Your task to perform on an android device: Open my contact list Image 0: 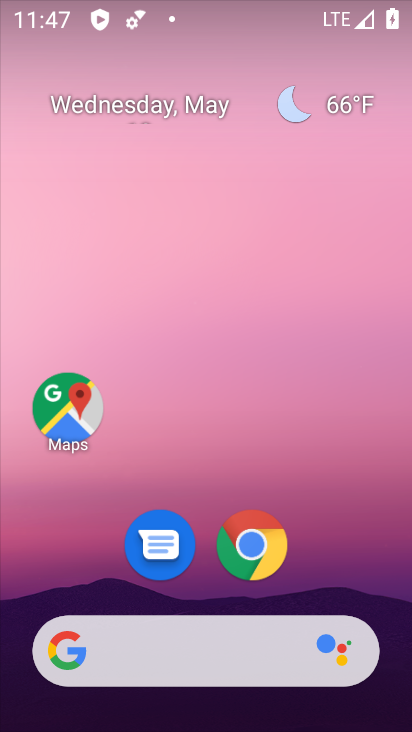
Step 0: press home button
Your task to perform on an android device: Open my contact list Image 1: 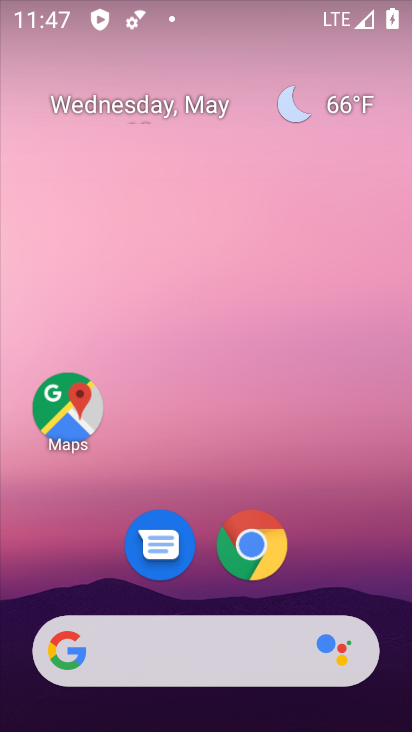
Step 1: drag from (225, 696) to (312, 115)
Your task to perform on an android device: Open my contact list Image 2: 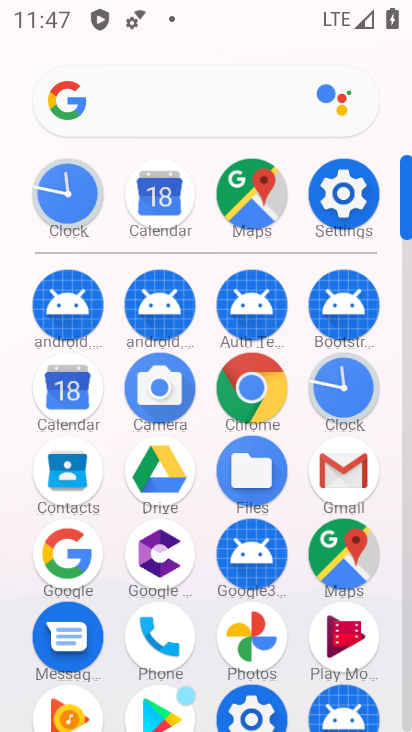
Step 2: click (71, 470)
Your task to perform on an android device: Open my contact list Image 3: 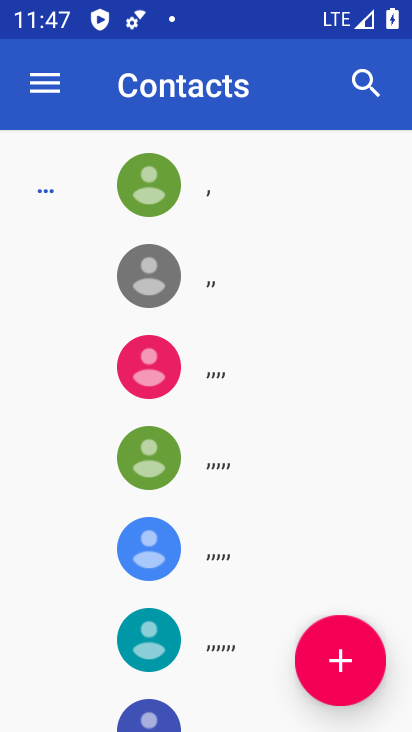
Step 3: click (304, 98)
Your task to perform on an android device: Open my contact list Image 4: 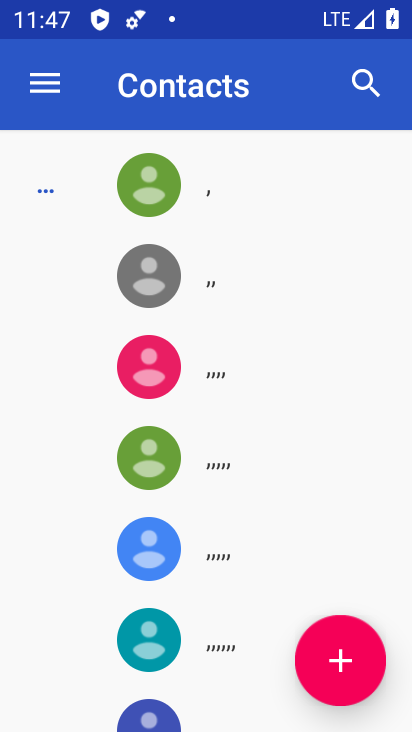
Step 4: task complete